Your task to perform on an android device: turn smart compose on in the gmail app Image 0: 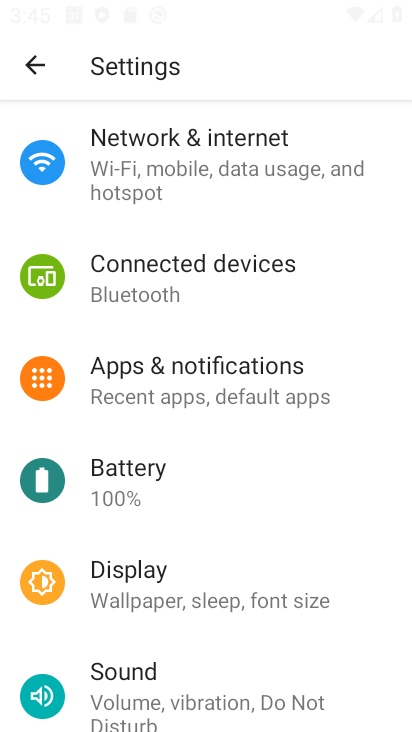
Step 0: press home button
Your task to perform on an android device: turn smart compose on in the gmail app Image 1: 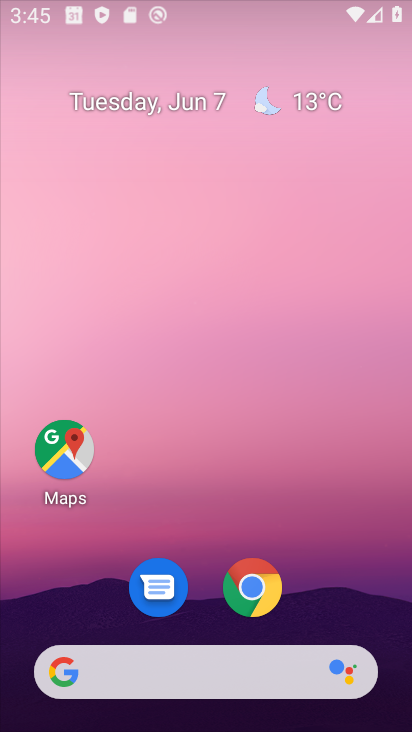
Step 1: drag from (203, 630) to (251, 119)
Your task to perform on an android device: turn smart compose on in the gmail app Image 2: 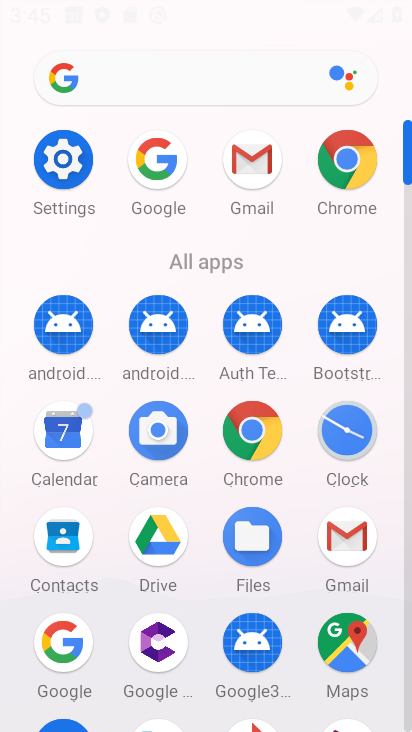
Step 2: click (347, 560)
Your task to perform on an android device: turn smart compose on in the gmail app Image 3: 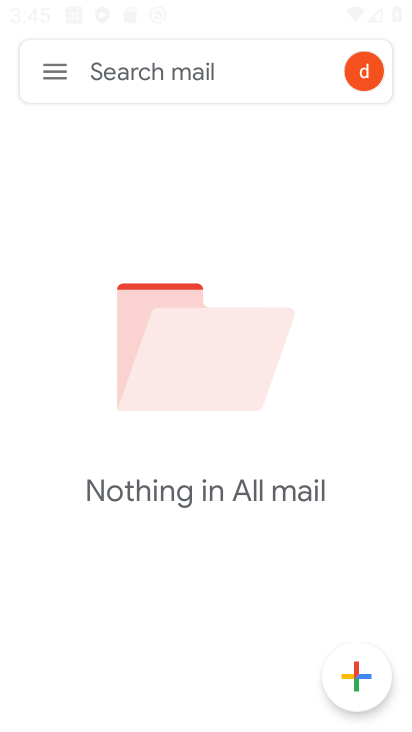
Step 3: click (65, 82)
Your task to perform on an android device: turn smart compose on in the gmail app Image 4: 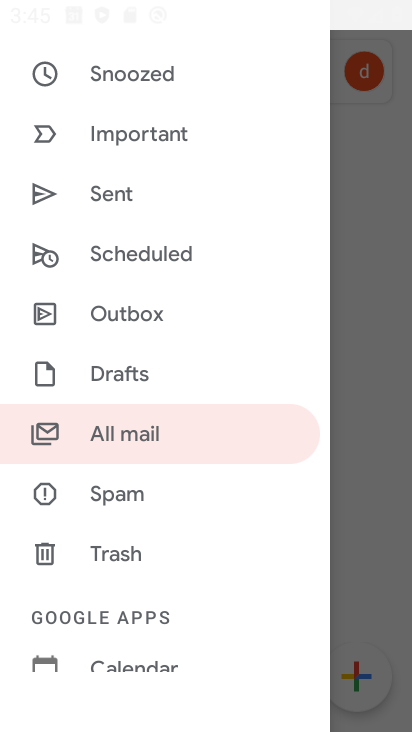
Step 4: drag from (125, 569) to (182, 224)
Your task to perform on an android device: turn smart compose on in the gmail app Image 5: 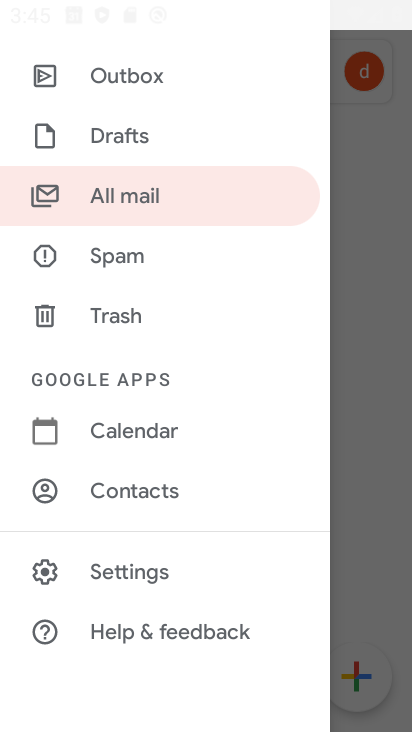
Step 5: click (156, 569)
Your task to perform on an android device: turn smart compose on in the gmail app Image 6: 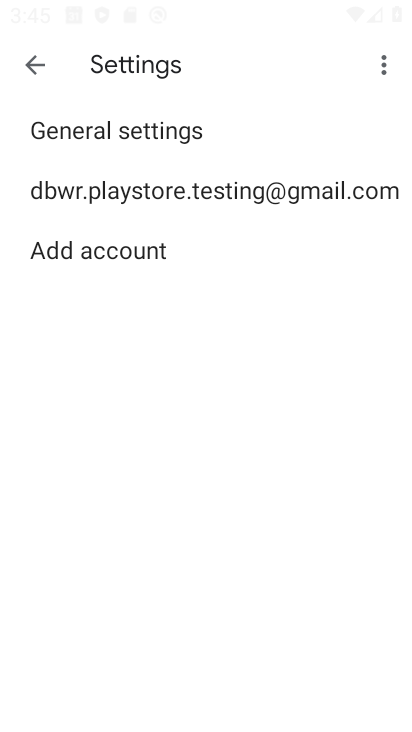
Step 6: click (235, 196)
Your task to perform on an android device: turn smart compose on in the gmail app Image 7: 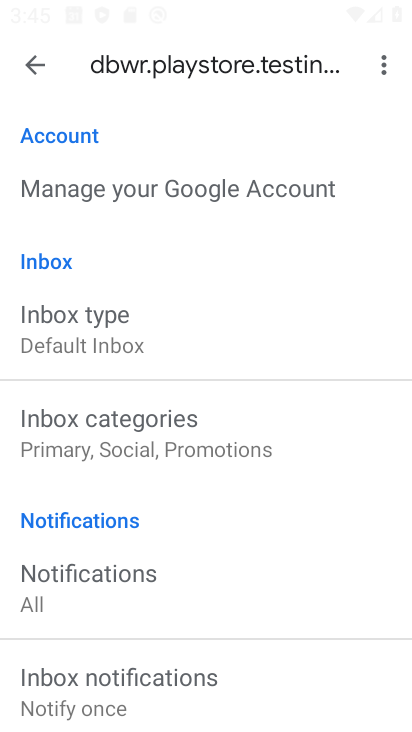
Step 7: task complete